Your task to perform on an android device: What's on the menu at Olive Garden? Image 0: 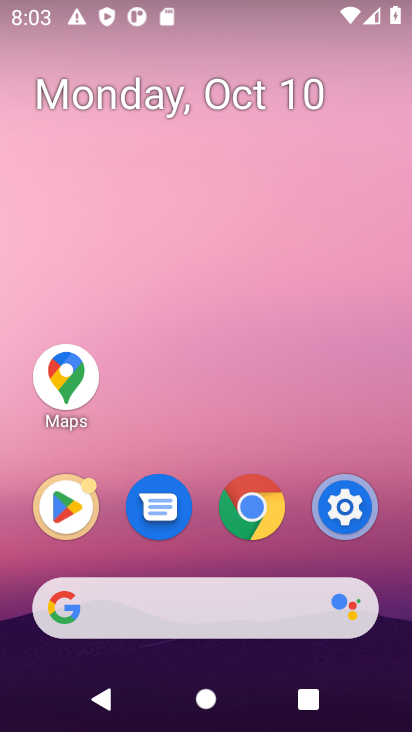
Step 0: drag from (188, 542) to (249, 87)
Your task to perform on an android device: What's on the menu at Olive Garden? Image 1: 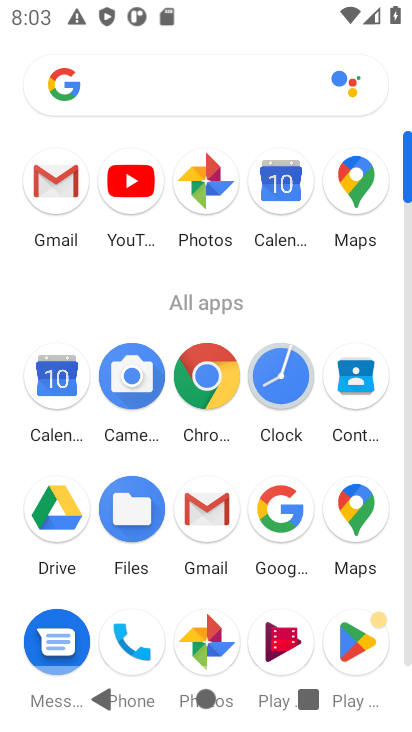
Step 1: click (281, 508)
Your task to perform on an android device: What's on the menu at Olive Garden? Image 2: 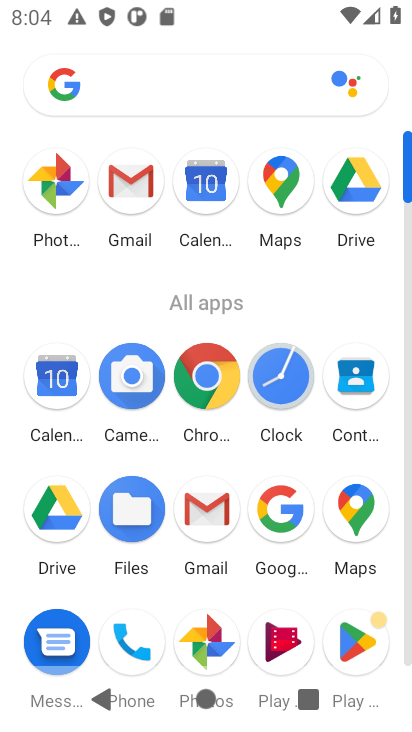
Step 2: click (277, 516)
Your task to perform on an android device: What's on the menu at Olive Garden? Image 3: 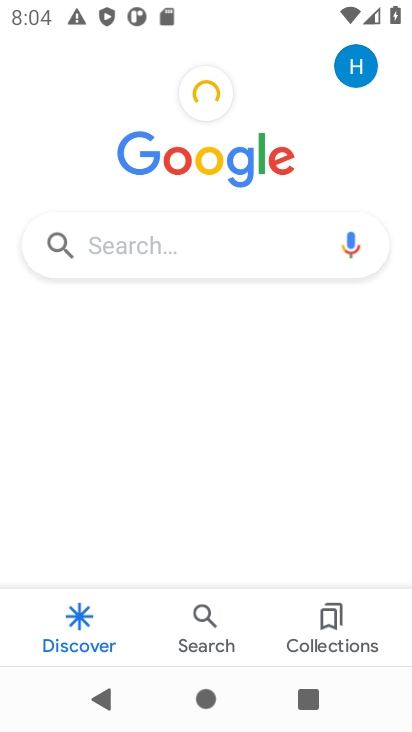
Step 3: click (218, 256)
Your task to perform on an android device: What's on the menu at Olive Garden? Image 4: 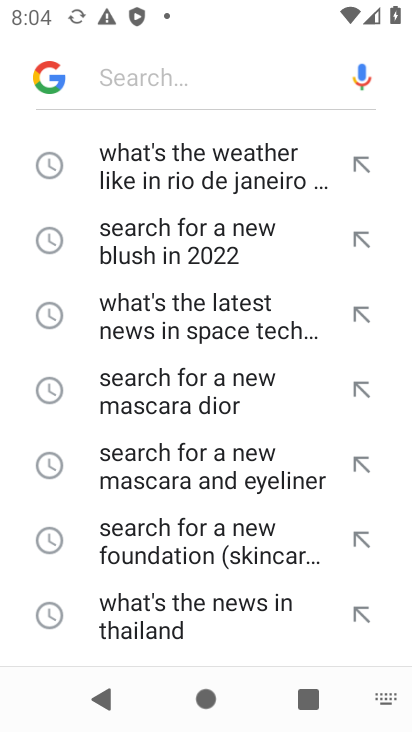
Step 4: type "What's on the menu at Olive Garden?"
Your task to perform on an android device: What's on the menu at Olive Garden? Image 5: 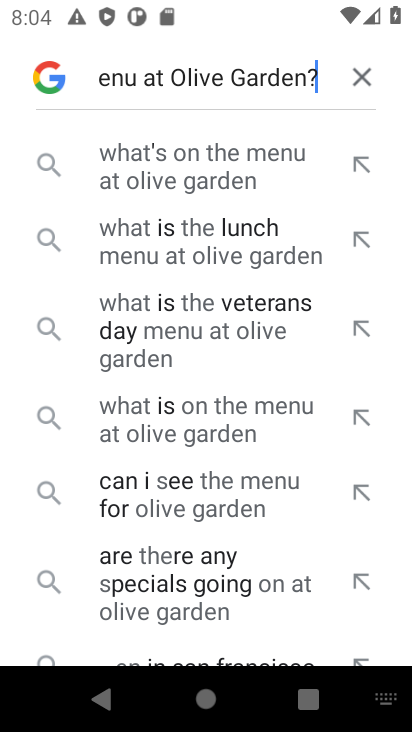
Step 5: click (163, 161)
Your task to perform on an android device: What's on the menu at Olive Garden? Image 6: 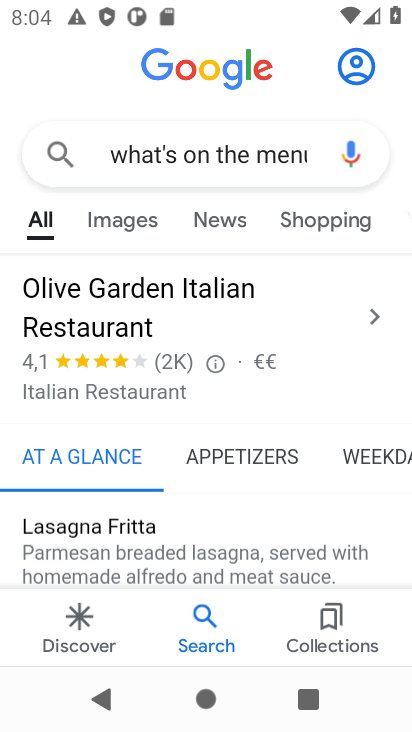
Step 6: task complete